Your task to perform on an android device: Go to Maps Image 0: 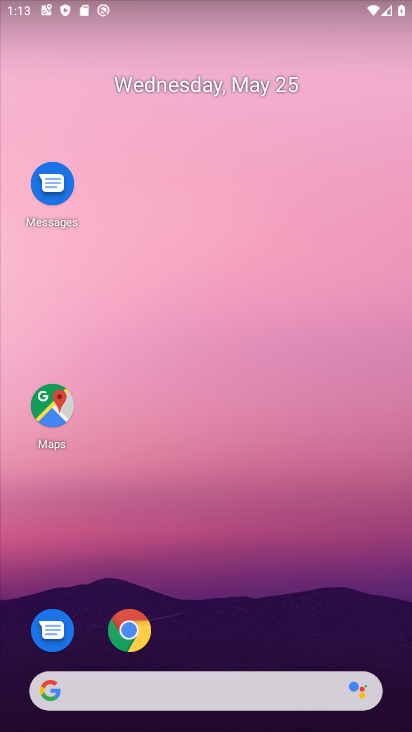
Step 0: drag from (292, 667) to (46, 32)
Your task to perform on an android device: Go to Maps Image 1: 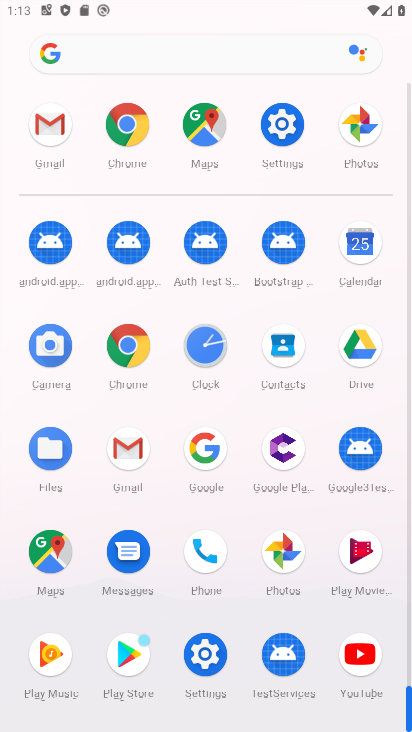
Step 1: click (58, 540)
Your task to perform on an android device: Go to Maps Image 2: 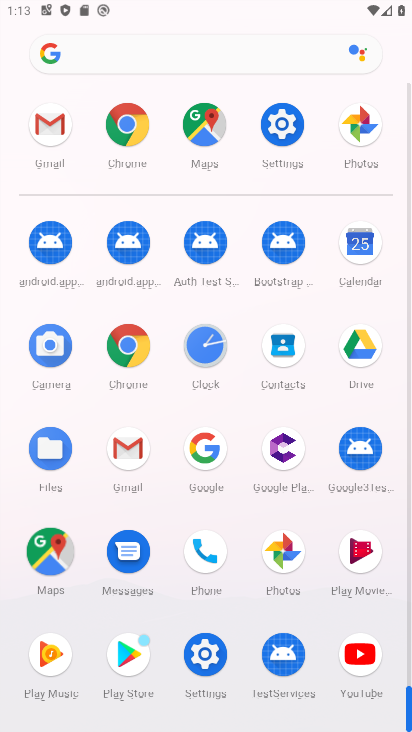
Step 2: click (58, 540)
Your task to perform on an android device: Go to Maps Image 3: 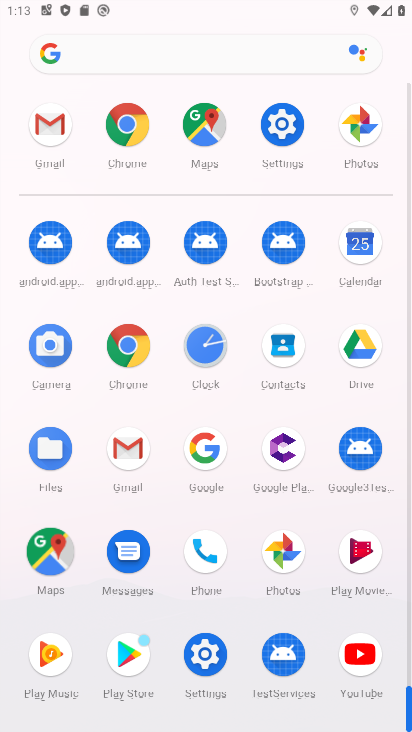
Step 3: click (56, 542)
Your task to perform on an android device: Go to Maps Image 4: 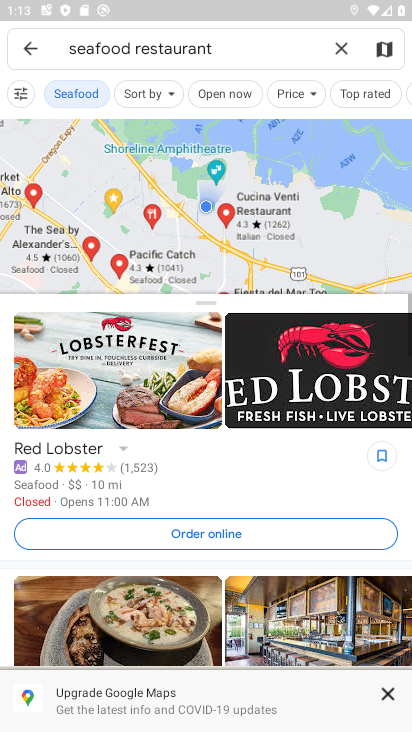
Step 4: click (52, 535)
Your task to perform on an android device: Go to Maps Image 5: 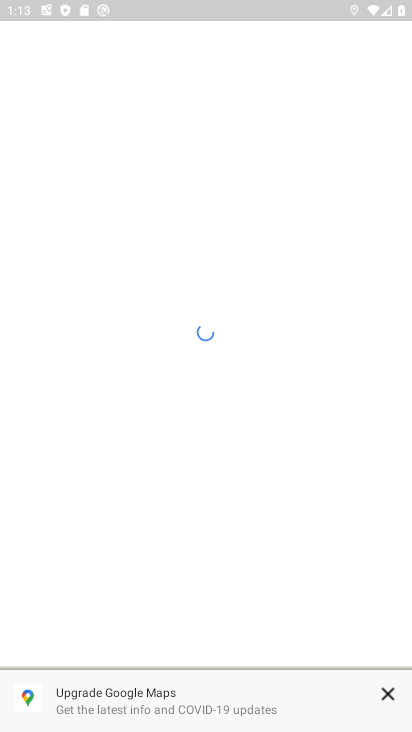
Step 5: task complete